Your task to perform on an android device: see creations saved in the google photos Image 0: 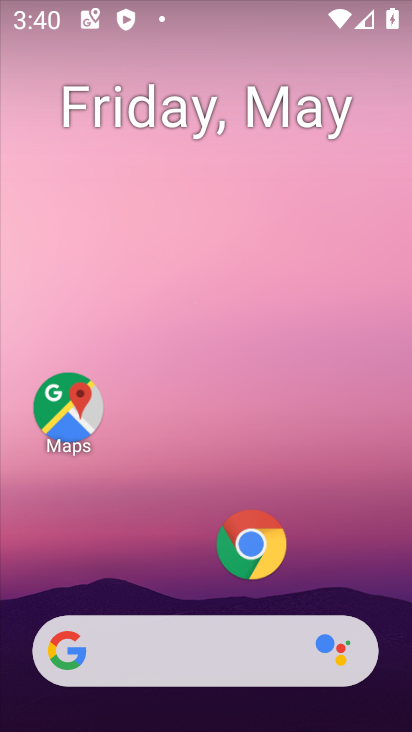
Step 0: drag from (185, 585) to (233, 264)
Your task to perform on an android device: see creations saved in the google photos Image 1: 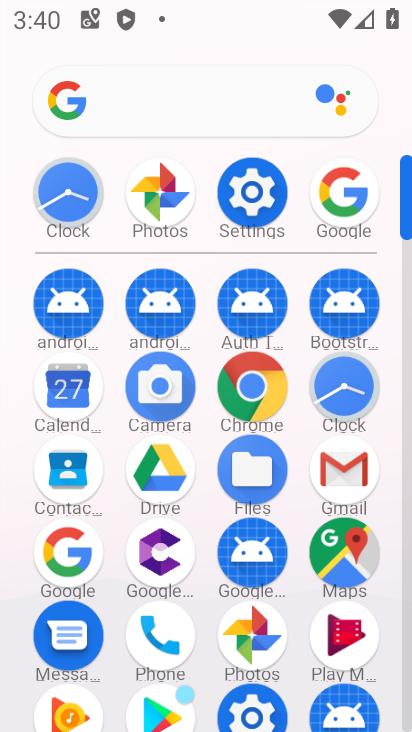
Step 1: click (239, 635)
Your task to perform on an android device: see creations saved in the google photos Image 2: 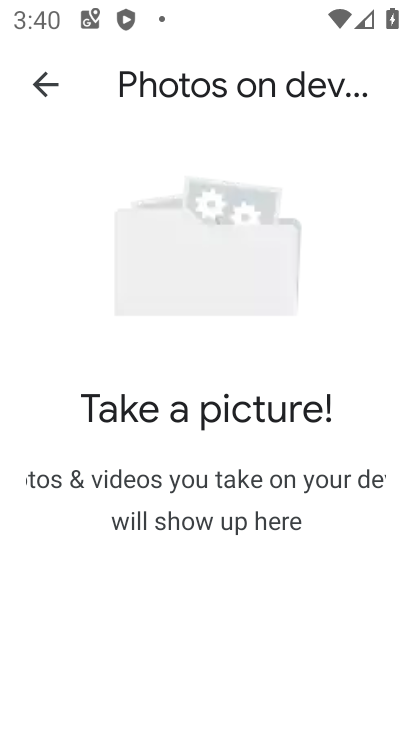
Step 2: click (49, 96)
Your task to perform on an android device: see creations saved in the google photos Image 3: 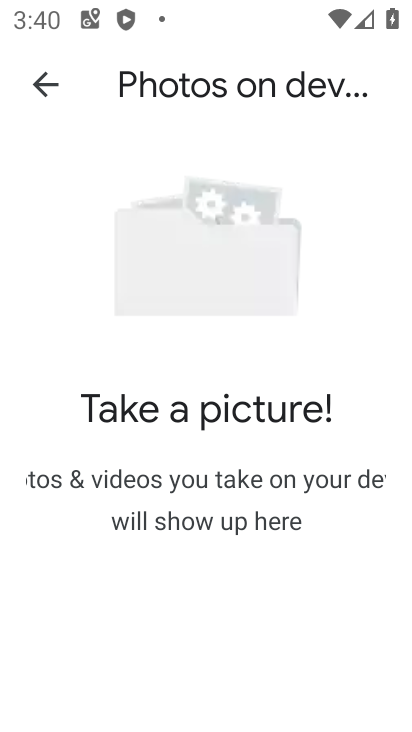
Step 3: click (47, 80)
Your task to perform on an android device: see creations saved in the google photos Image 4: 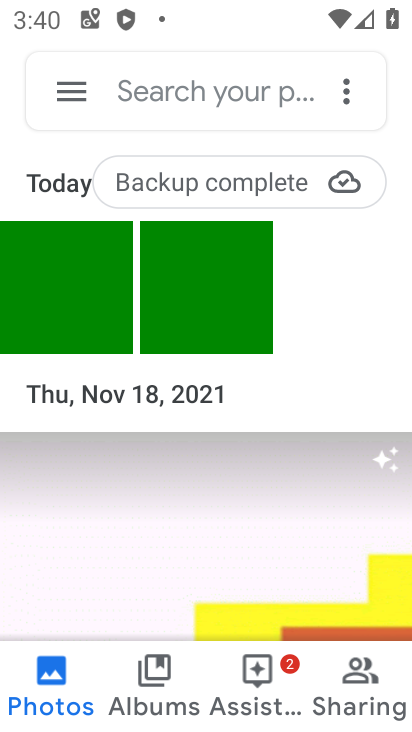
Step 4: click (148, 96)
Your task to perform on an android device: see creations saved in the google photos Image 5: 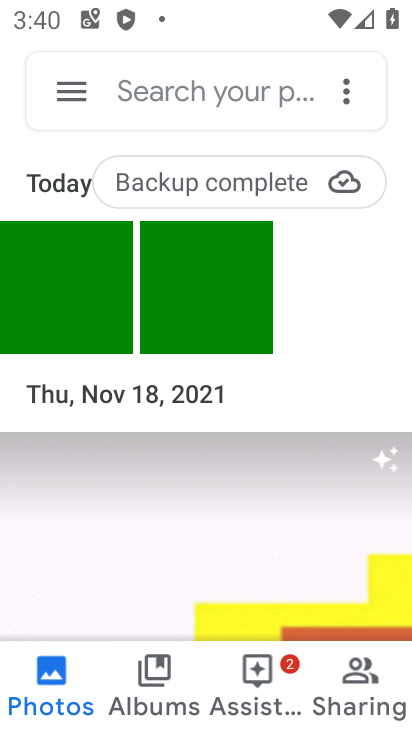
Step 5: click (189, 97)
Your task to perform on an android device: see creations saved in the google photos Image 6: 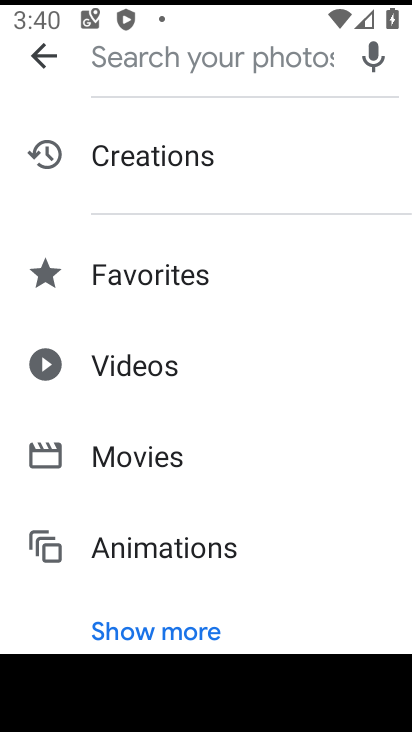
Step 6: click (176, 180)
Your task to perform on an android device: see creations saved in the google photos Image 7: 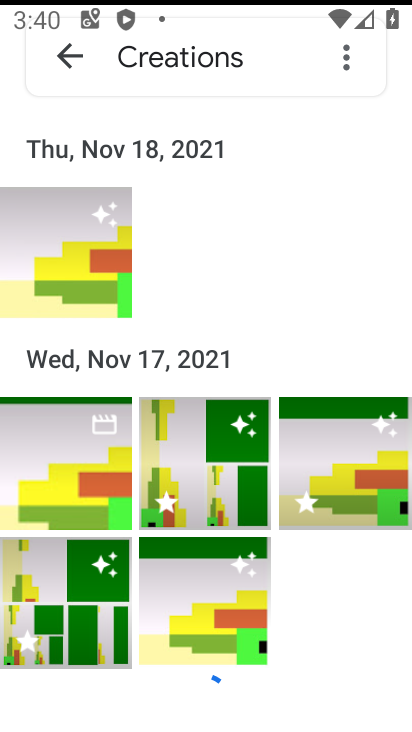
Step 7: task complete